Your task to perform on an android device: turn on location history Image 0: 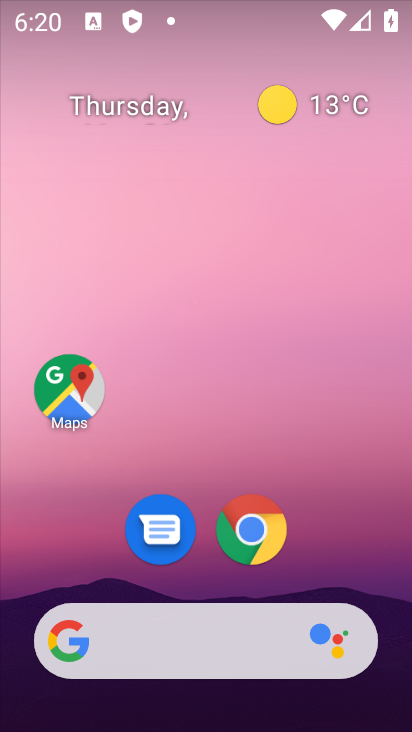
Step 0: drag from (305, 587) to (296, 45)
Your task to perform on an android device: turn on location history Image 1: 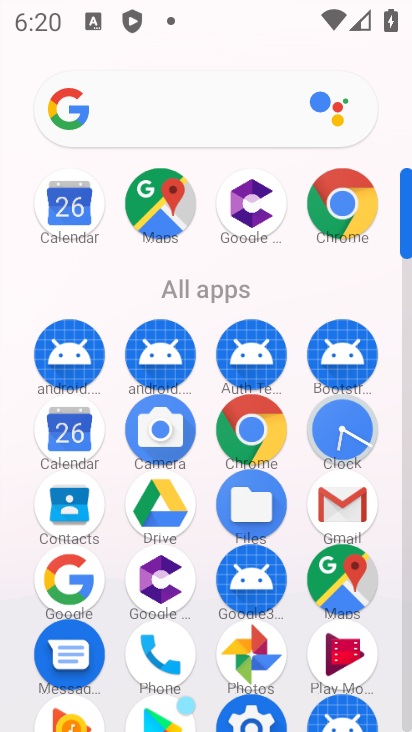
Step 1: drag from (198, 617) to (208, 235)
Your task to perform on an android device: turn on location history Image 2: 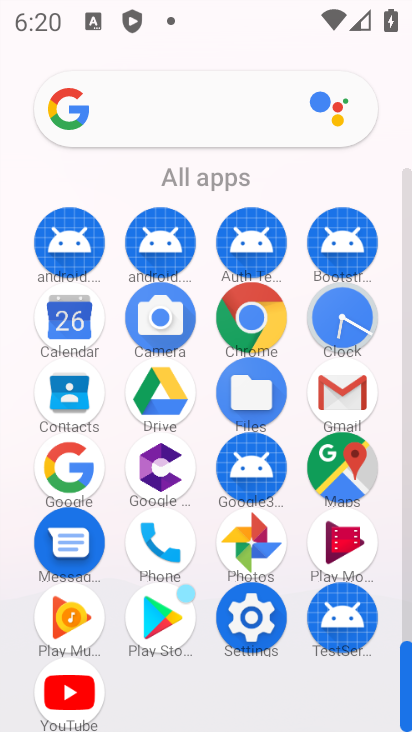
Step 2: click (261, 625)
Your task to perform on an android device: turn on location history Image 3: 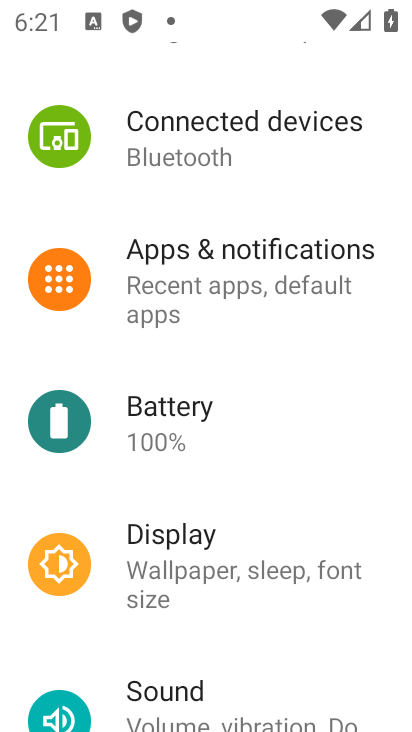
Step 3: drag from (286, 277) to (252, 728)
Your task to perform on an android device: turn on location history Image 4: 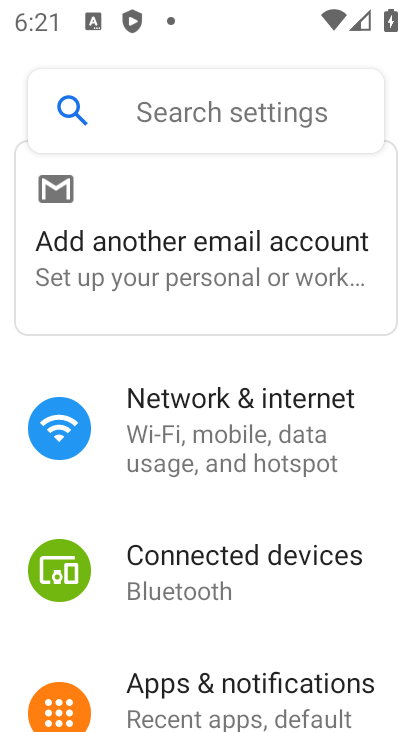
Step 4: drag from (254, 624) to (290, 209)
Your task to perform on an android device: turn on location history Image 5: 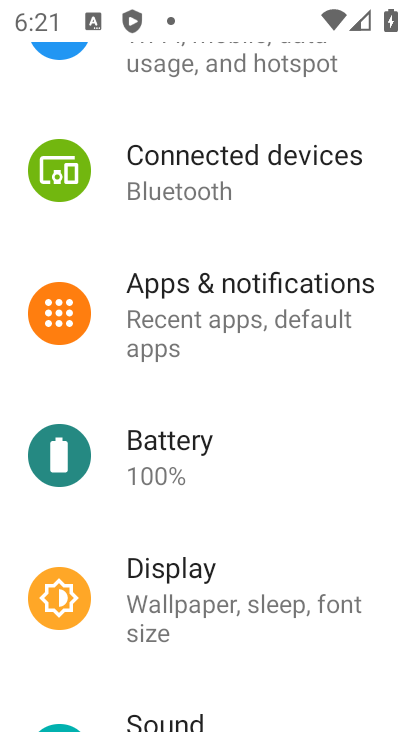
Step 5: drag from (194, 680) to (209, 161)
Your task to perform on an android device: turn on location history Image 6: 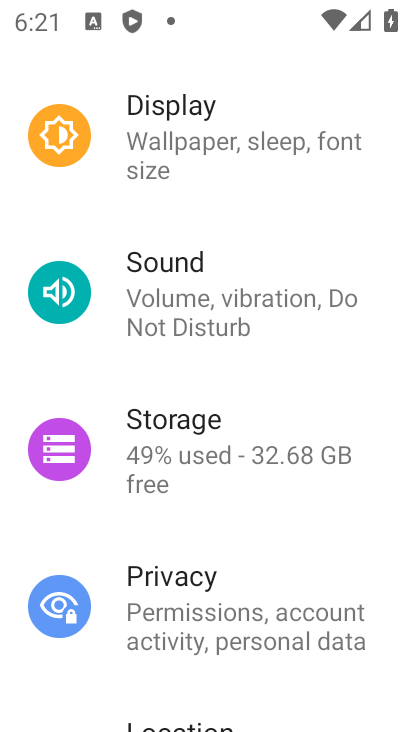
Step 6: drag from (207, 708) to (250, 415)
Your task to perform on an android device: turn on location history Image 7: 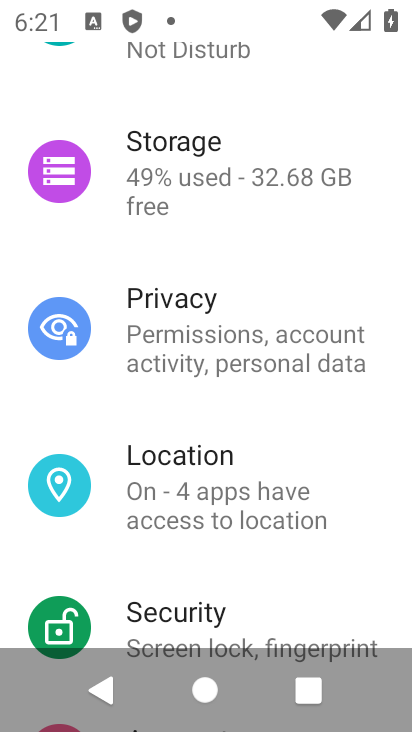
Step 7: click (266, 497)
Your task to perform on an android device: turn on location history Image 8: 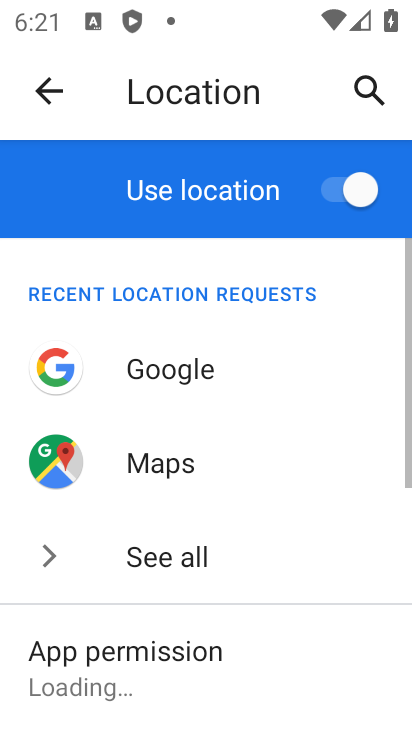
Step 8: drag from (271, 679) to (276, 179)
Your task to perform on an android device: turn on location history Image 9: 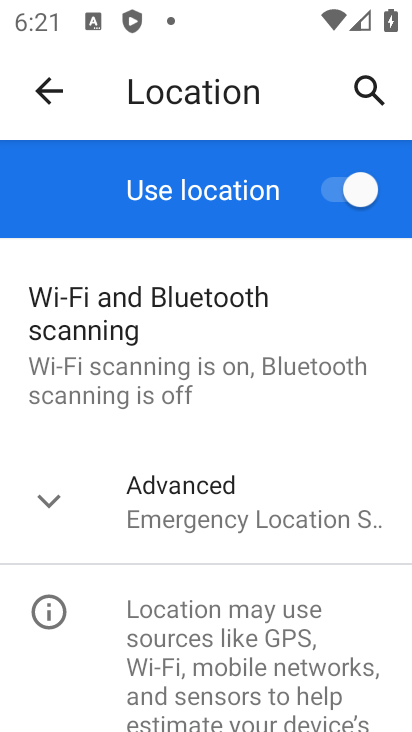
Step 9: click (267, 501)
Your task to perform on an android device: turn on location history Image 10: 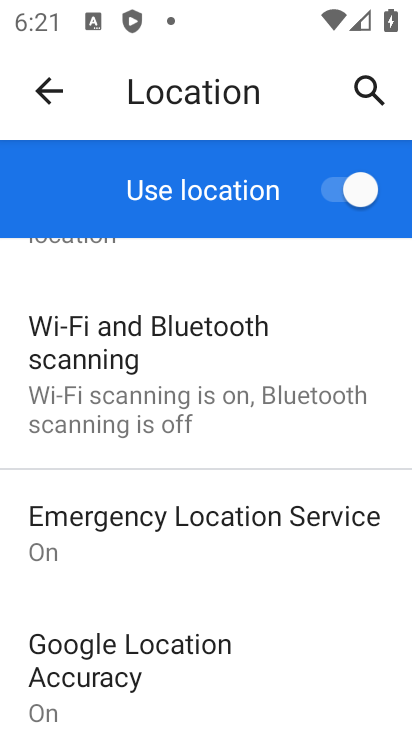
Step 10: drag from (206, 666) to (218, 190)
Your task to perform on an android device: turn on location history Image 11: 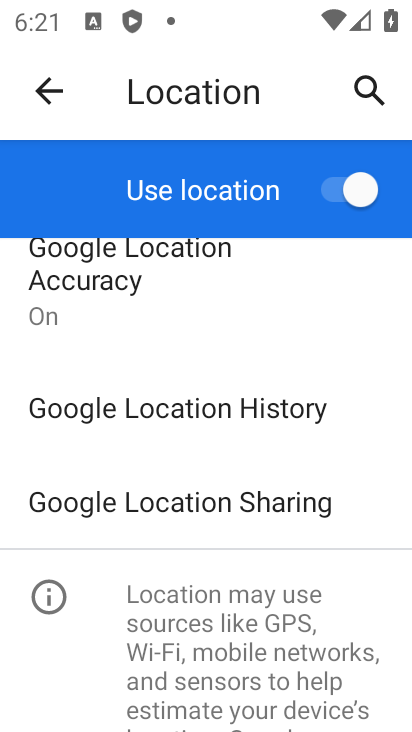
Step 11: click (198, 409)
Your task to perform on an android device: turn on location history Image 12: 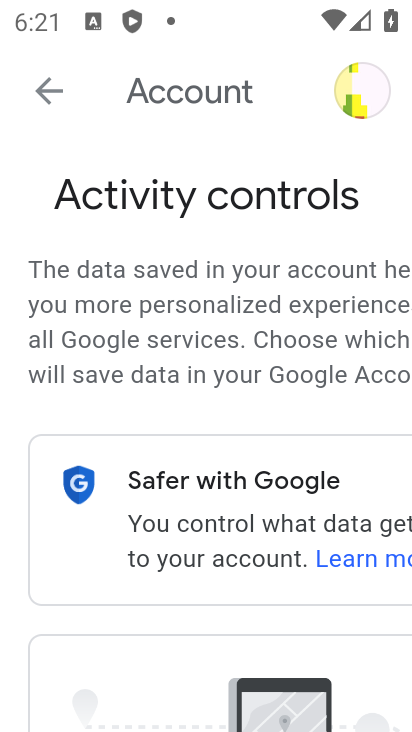
Step 12: drag from (262, 609) to (216, 60)
Your task to perform on an android device: turn on location history Image 13: 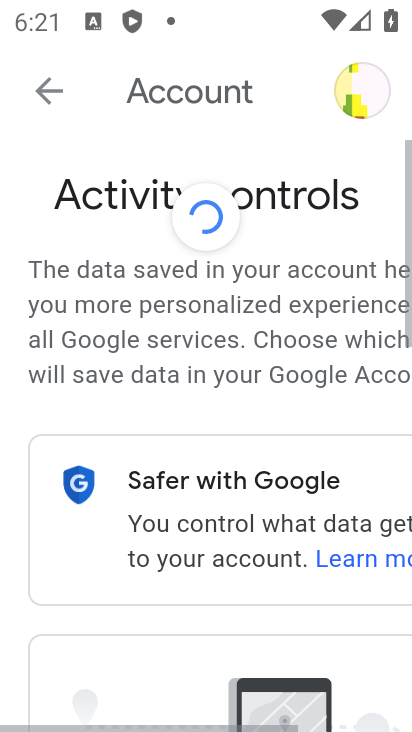
Step 13: drag from (254, 687) to (152, 118)
Your task to perform on an android device: turn on location history Image 14: 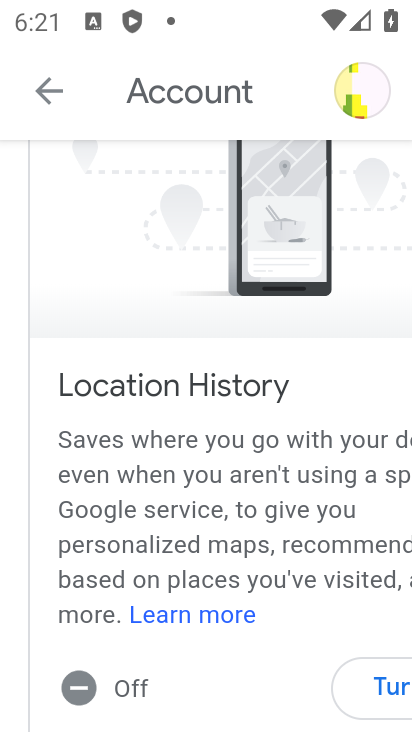
Step 14: click (391, 684)
Your task to perform on an android device: turn on location history Image 15: 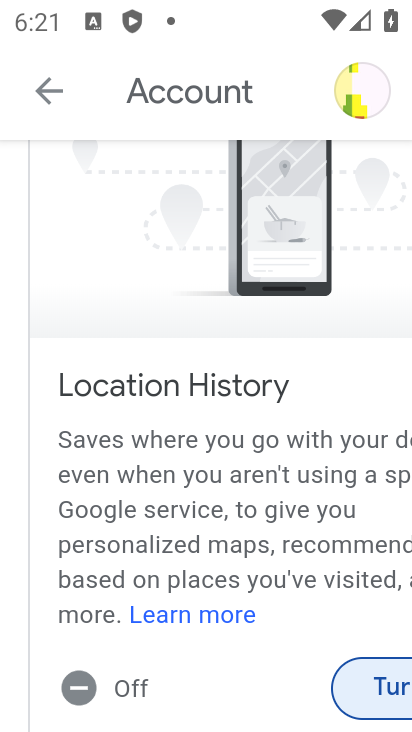
Step 15: click (391, 684)
Your task to perform on an android device: turn on location history Image 16: 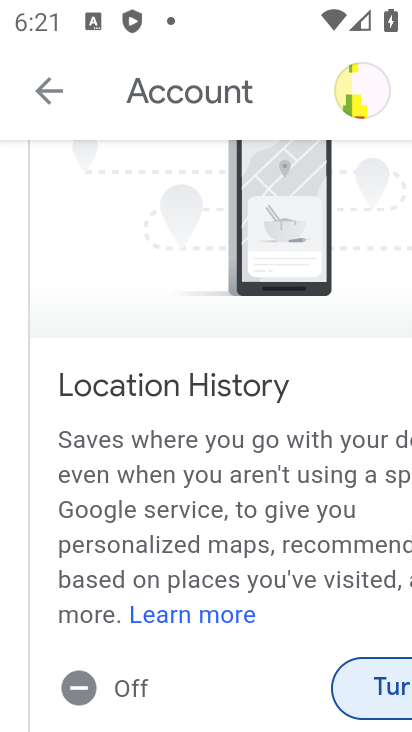
Step 16: click (391, 684)
Your task to perform on an android device: turn on location history Image 17: 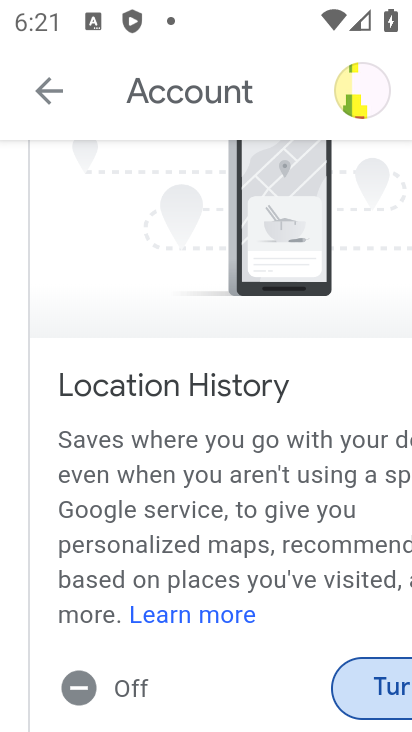
Step 17: click (391, 684)
Your task to perform on an android device: turn on location history Image 18: 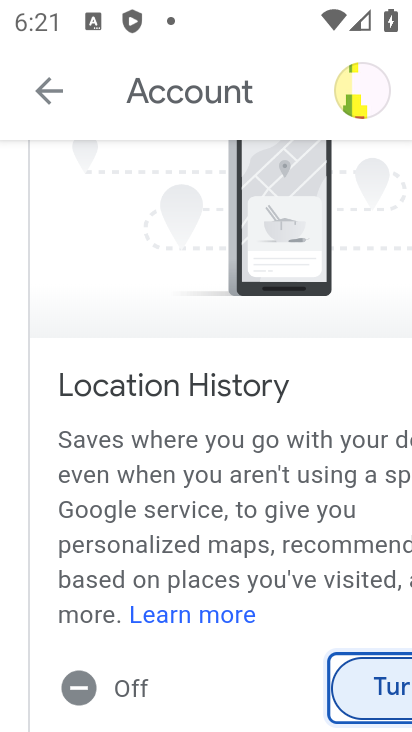
Step 18: drag from (239, 646) to (199, 59)
Your task to perform on an android device: turn on location history Image 19: 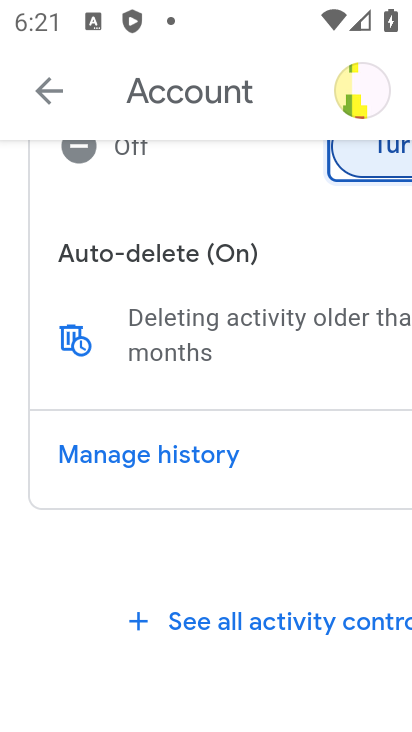
Step 19: click (392, 152)
Your task to perform on an android device: turn on location history Image 20: 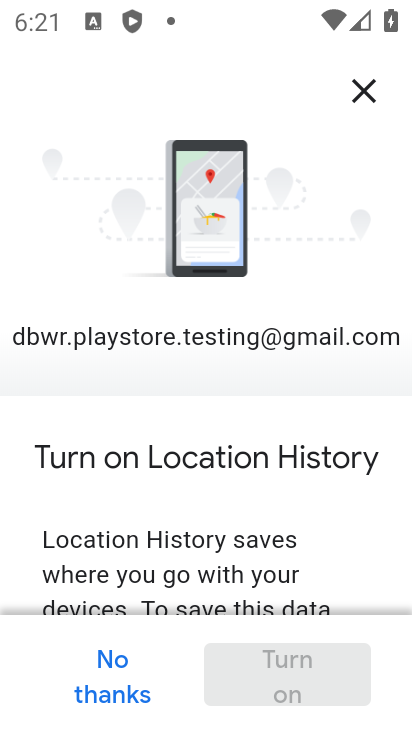
Step 20: drag from (316, 566) to (312, 86)
Your task to perform on an android device: turn on location history Image 21: 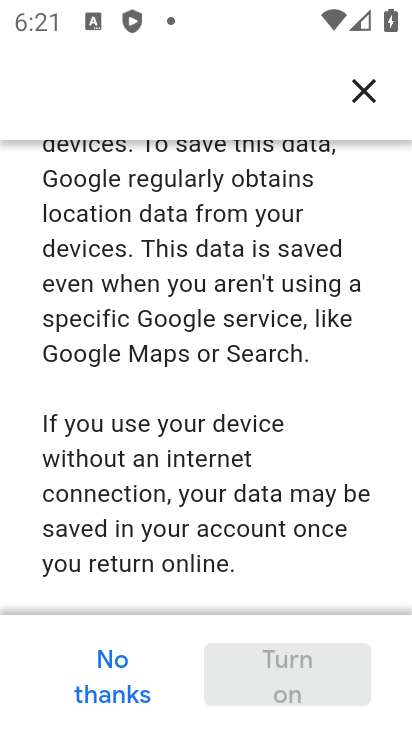
Step 21: drag from (314, 577) to (296, 209)
Your task to perform on an android device: turn on location history Image 22: 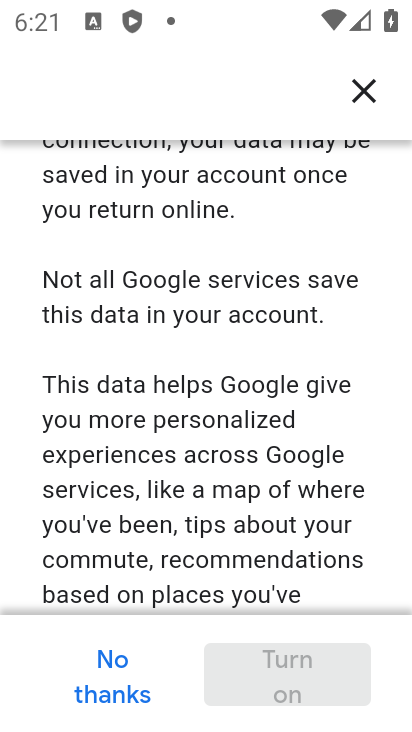
Step 22: drag from (238, 542) to (271, 157)
Your task to perform on an android device: turn on location history Image 23: 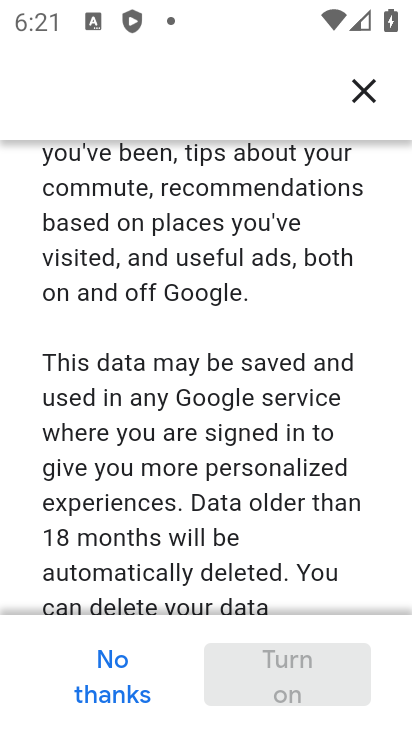
Step 23: drag from (316, 506) to (325, 174)
Your task to perform on an android device: turn on location history Image 24: 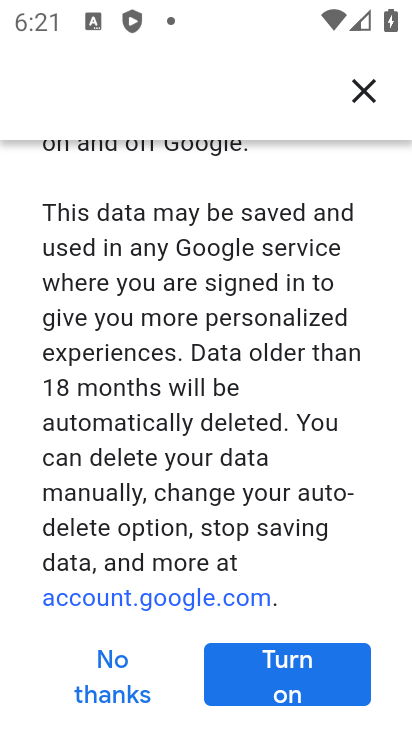
Step 24: click (281, 665)
Your task to perform on an android device: turn on location history Image 25: 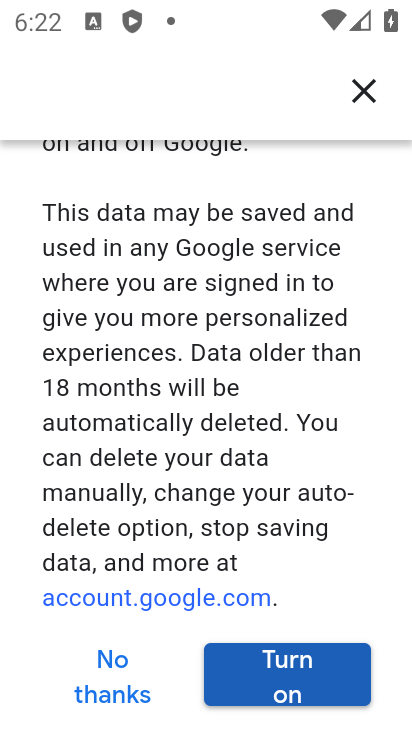
Step 25: click (281, 665)
Your task to perform on an android device: turn on location history Image 26: 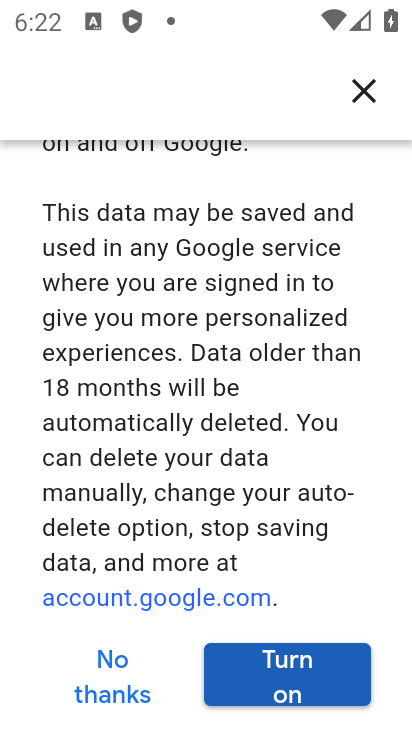
Step 26: click (300, 683)
Your task to perform on an android device: turn on location history Image 27: 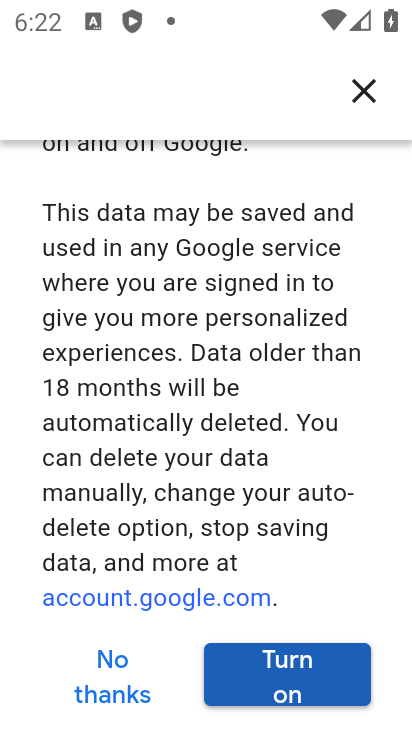
Step 27: click (300, 683)
Your task to perform on an android device: turn on location history Image 28: 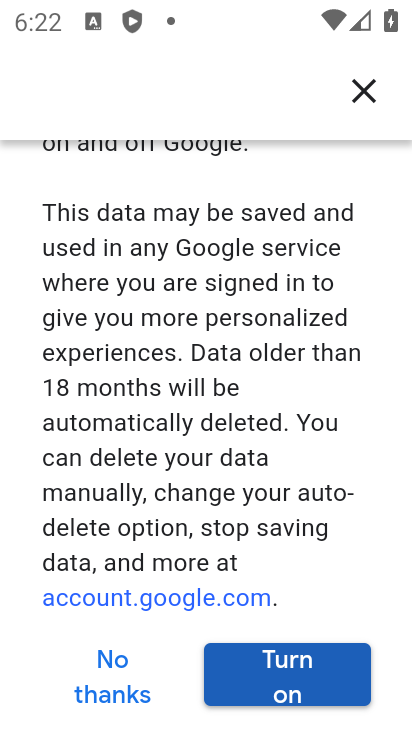
Step 28: click (300, 683)
Your task to perform on an android device: turn on location history Image 29: 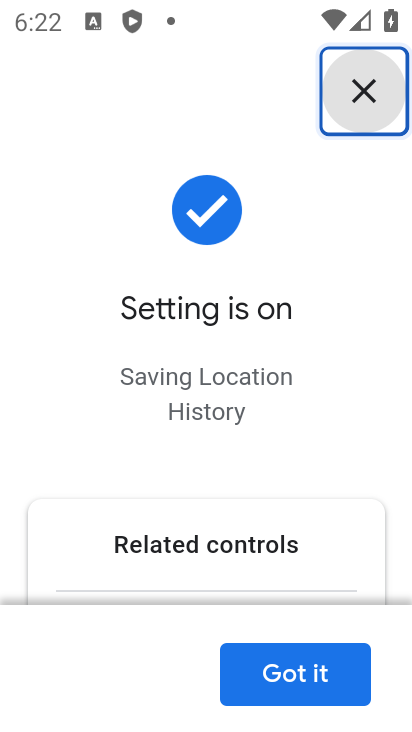
Step 29: task complete